Your task to perform on an android device: turn off sleep mode Image 0: 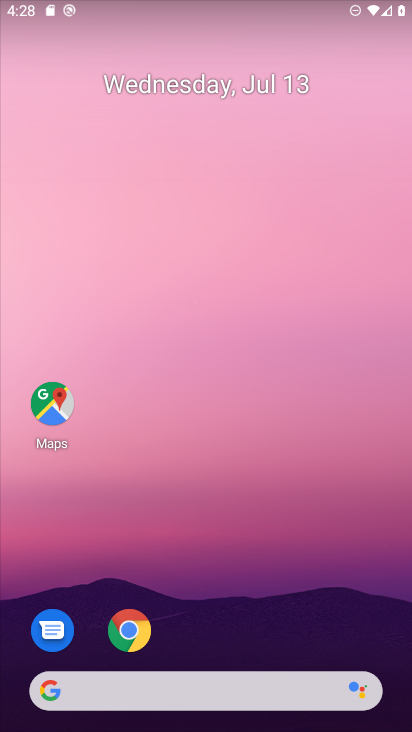
Step 0: drag from (209, 373) to (307, 30)
Your task to perform on an android device: turn off sleep mode Image 1: 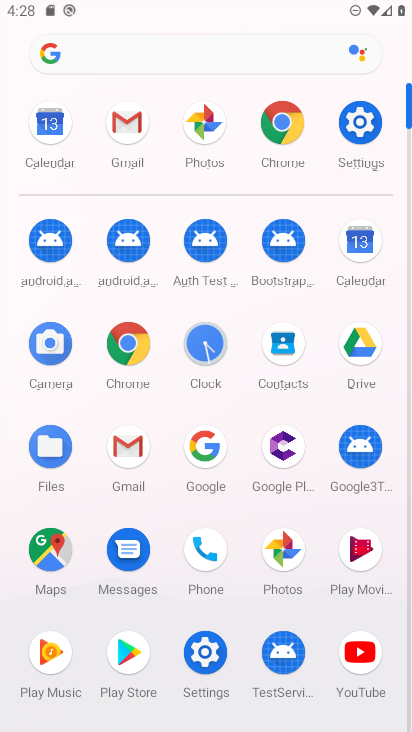
Step 1: click (352, 121)
Your task to perform on an android device: turn off sleep mode Image 2: 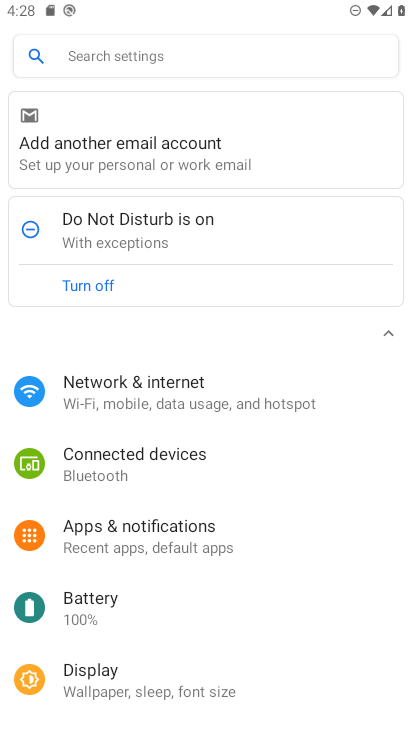
Step 2: task complete